Your task to perform on an android device: Open wifi settings Image 0: 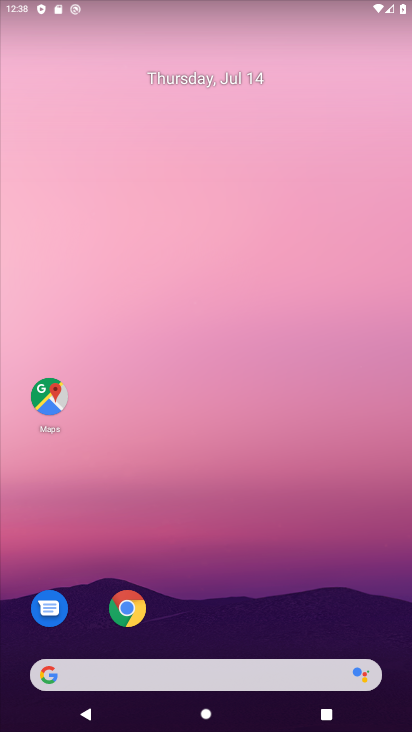
Step 0: drag from (200, 627) to (243, 206)
Your task to perform on an android device: Open wifi settings Image 1: 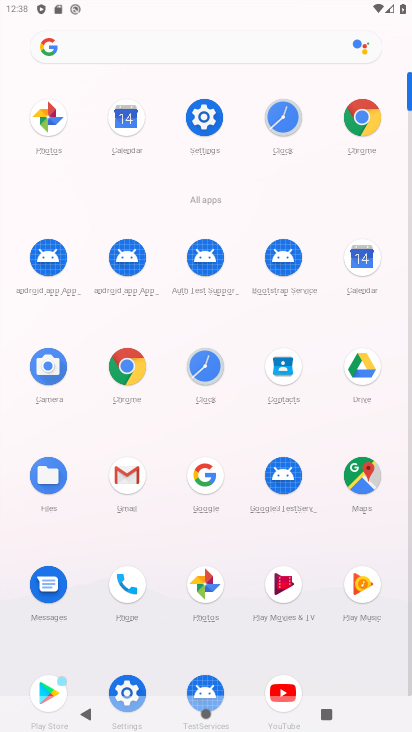
Step 1: click (193, 113)
Your task to perform on an android device: Open wifi settings Image 2: 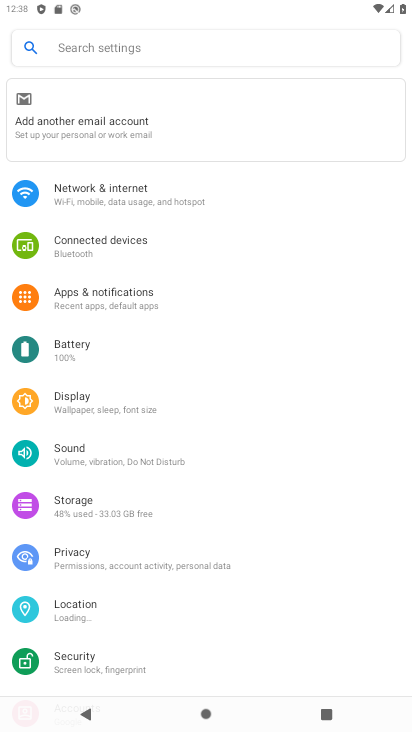
Step 2: click (106, 199)
Your task to perform on an android device: Open wifi settings Image 3: 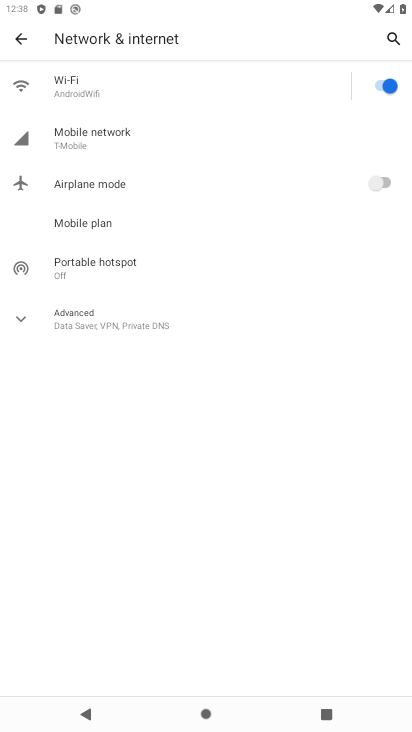
Step 3: click (156, 91)
Your task to perform on an android device: Open wifi settings Image 4: 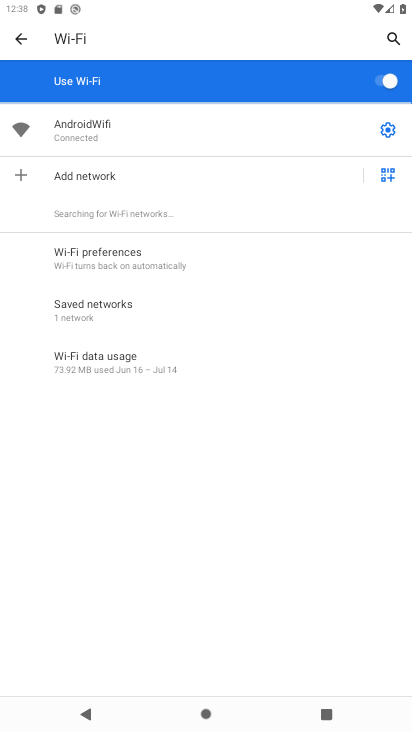
Step 4: click (382, 129)
Your task to perform on an android device: Open wifi settings Image 5: 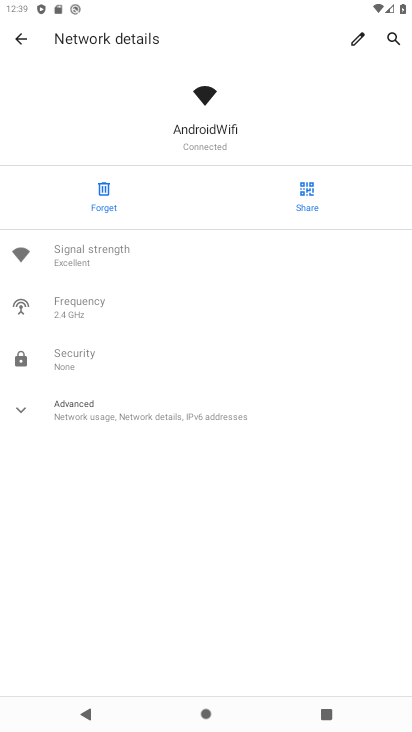
Step 5: task complete